Your task to perform on an android device: Open sound settings Image 0: 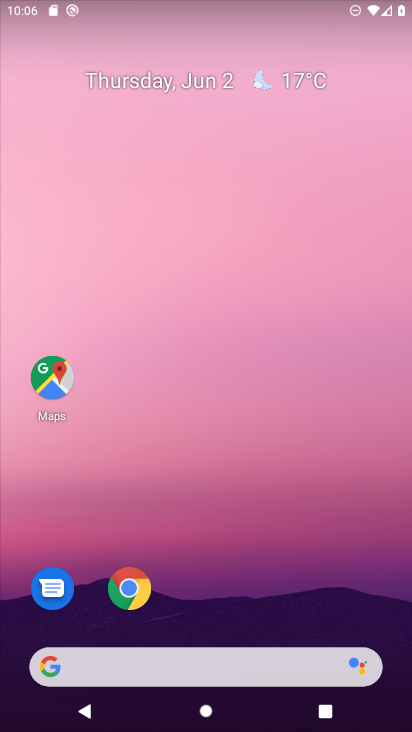
Step 0: drag from (240, 586) to (290, 10)
Your task to perform on an android device: Open sound settings Image 1: 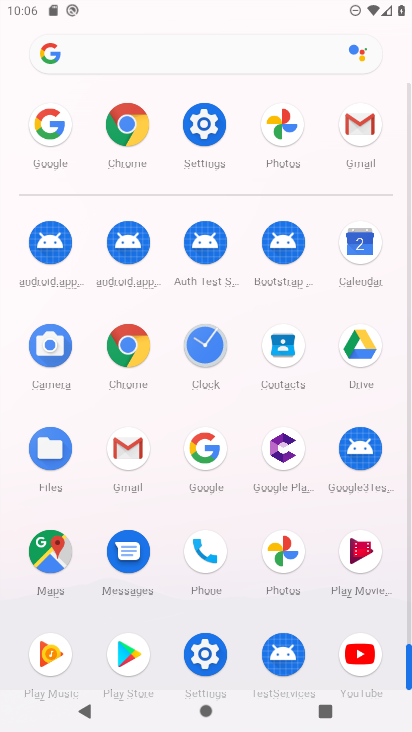
Step 1: click (217, 147)
Your task to perform on an android device: Open sound settings Image 2: 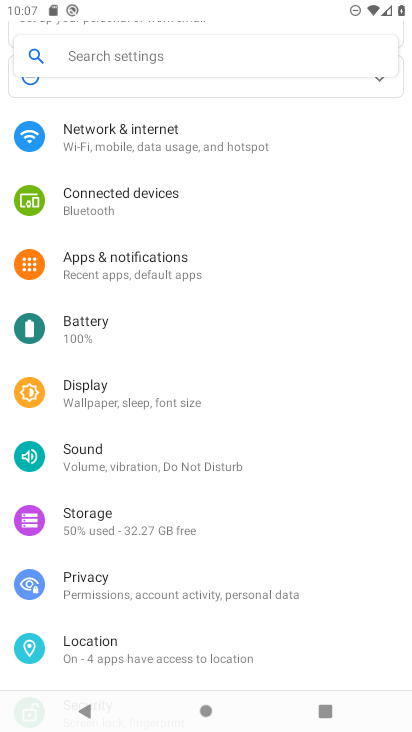
Step 2: click (135, 459)
Your task to perform on an android device: Open sound settings Image 3: 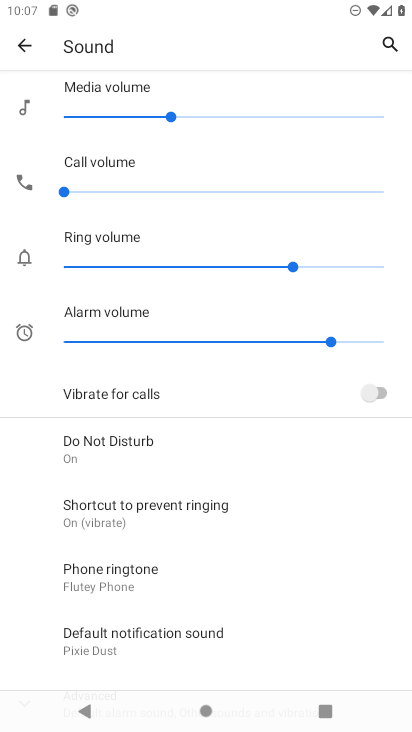
Step 3: task complete